Your task to perform on an android device: Show the shopping cart on walmart.com. Search for "logitech g pro" on walmart.com, select the first entry, and add it to the cart. Image 0: 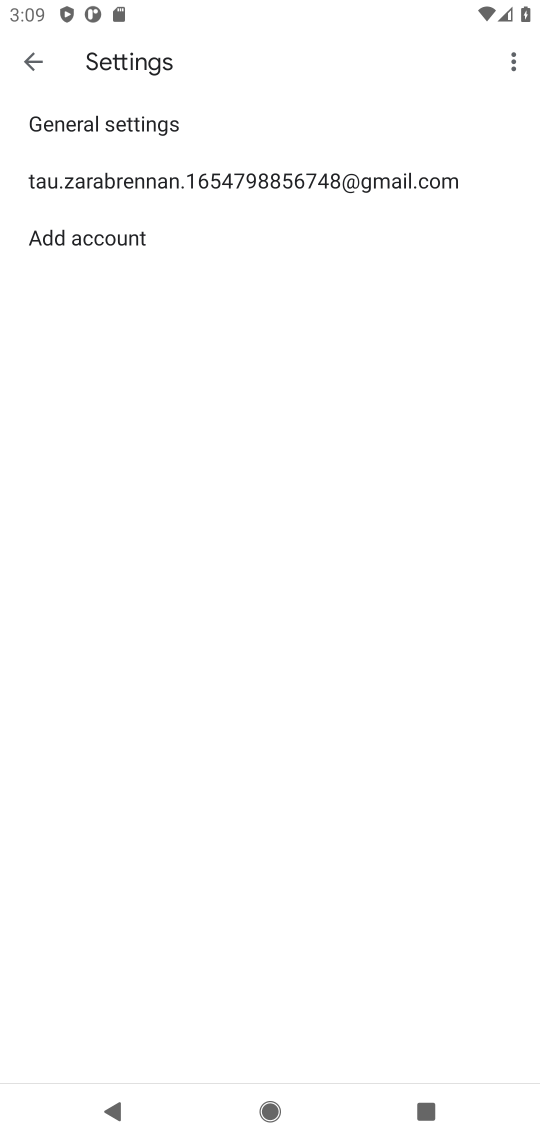
Step 0: press home button
Your task to perform on an android device: Show the shopping cart on walmart.com. Search for "logitech g pro" on walmart.com, select the first entry, and add it to the cart. Image 1: 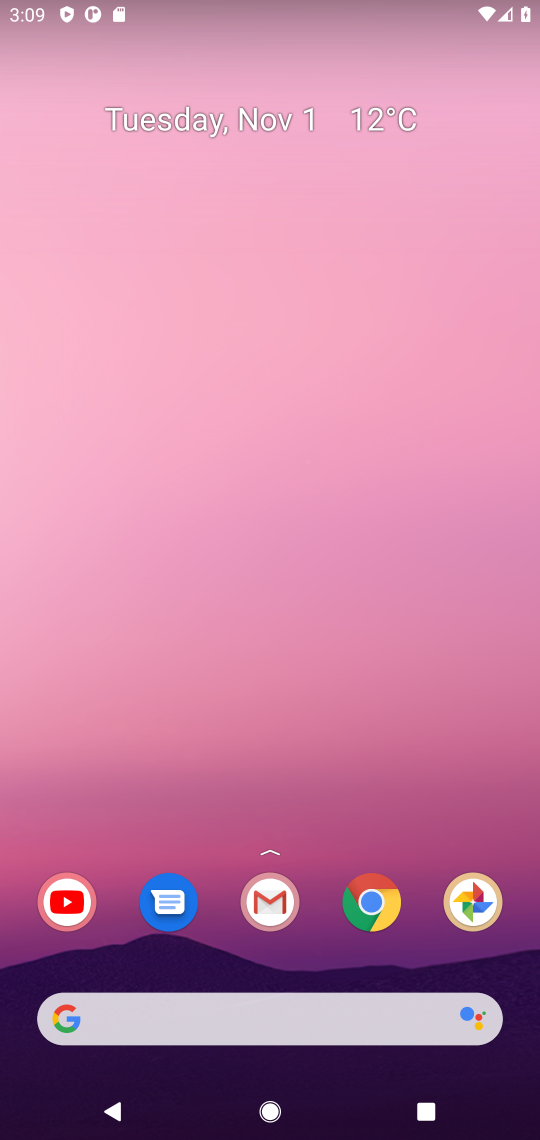
Step 1: drag from (261, 1037) to (260, 314)
Your task to perform on an android device: Show the shopping cart on walmart.com. Search for "logitech g pro" on walmart.com, select the first entry, and add it to the cart. Image 2: 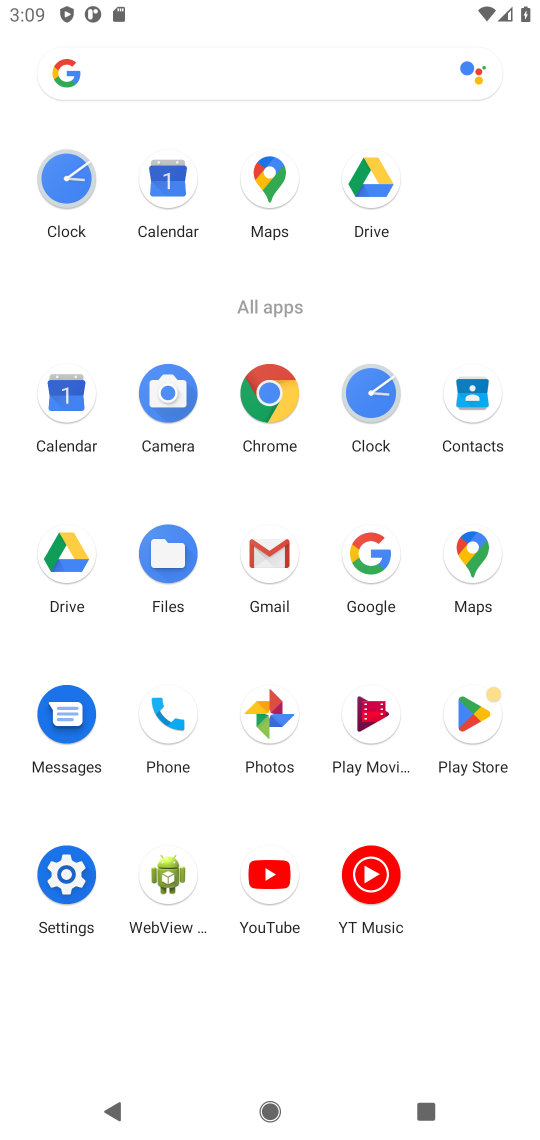
Step 2: click (361, 549)
Your task to perform on an android device: Show the shopping cart on walmart.com. Search for "logitech g pro" on walmart.com, select the first entry, and add it to the cart. Image 3: 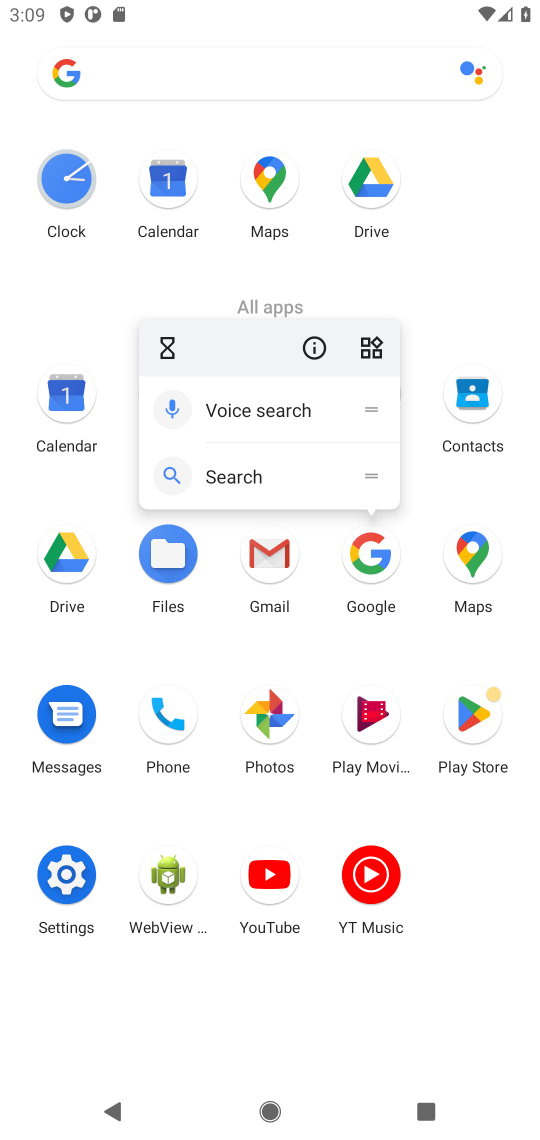
Step 3: click (381, 568)
Your task to perform on an android device: Show the shopping cart on walmart.com. Search for "logitech g pro" on walmart.com, select the first entry, and add it to the cart. Image 4: 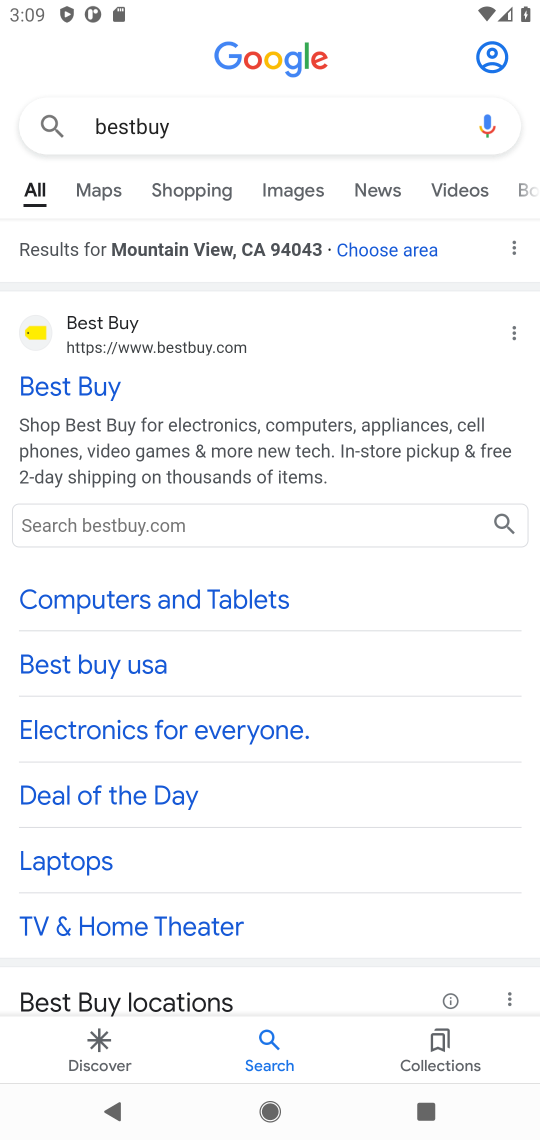
Step 4: click (125, 131)
Your task to perform on an android device: Show the shopping cart on walmart.com. Search for "logitech g pro" on walmart.com, select the first entry, and add it to the cart. Image 5: 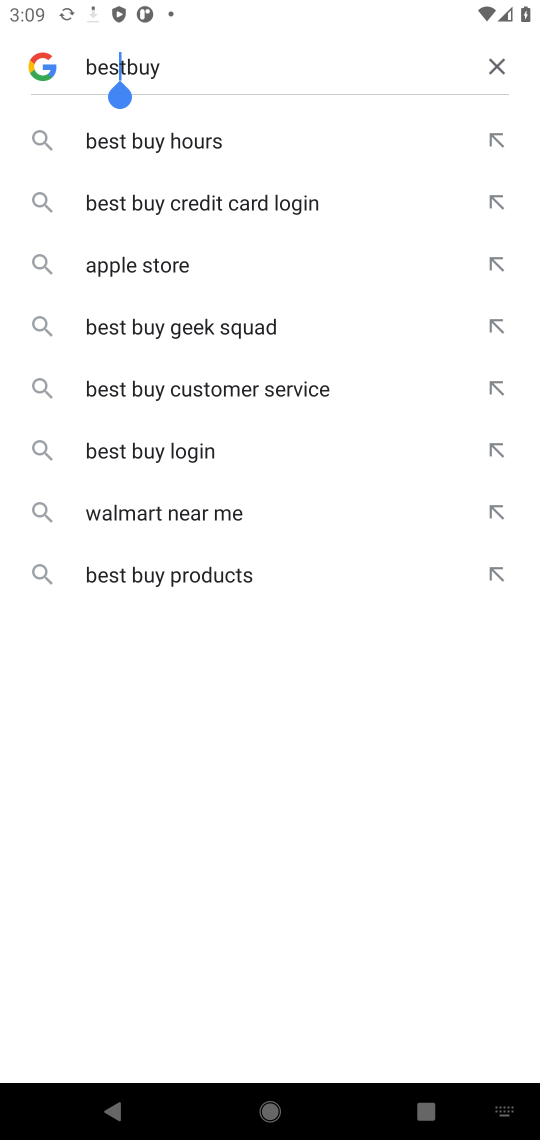
Step 5: click (491, 69)
Your task to perform on an android device: Show the shopping cart on walmart.com. Search for "logitech g pro" on walmart.com, select the first entry, and add it to the cart. Image 6: 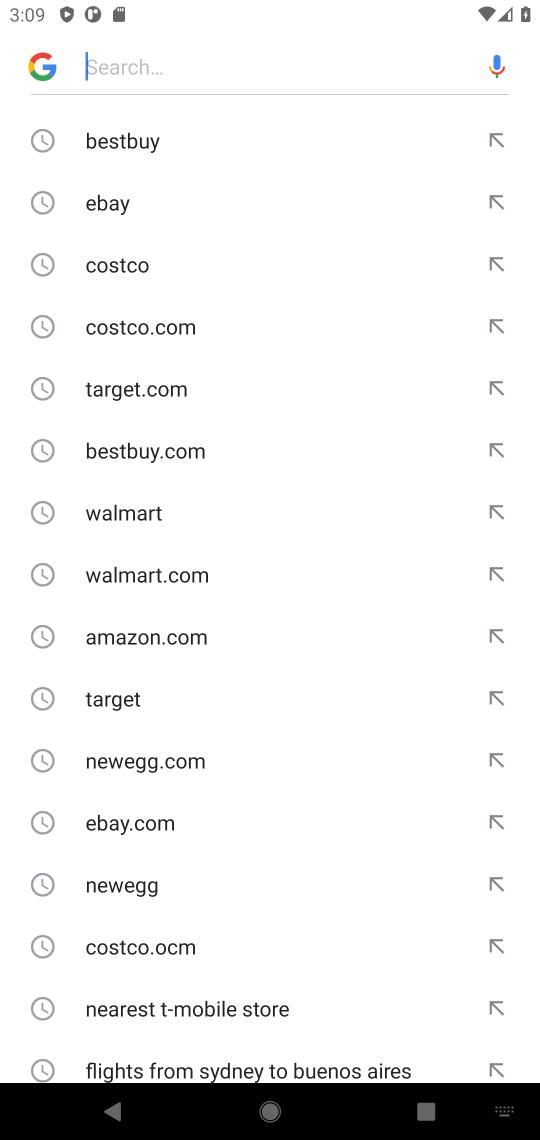
Step 6: click (128, 515)
Your task to perform on an android device: Show the shopping cart on walmart.com. Search for "logitech g pro" on walmart.com, select the first entry, and add it to the cart. Image 7: 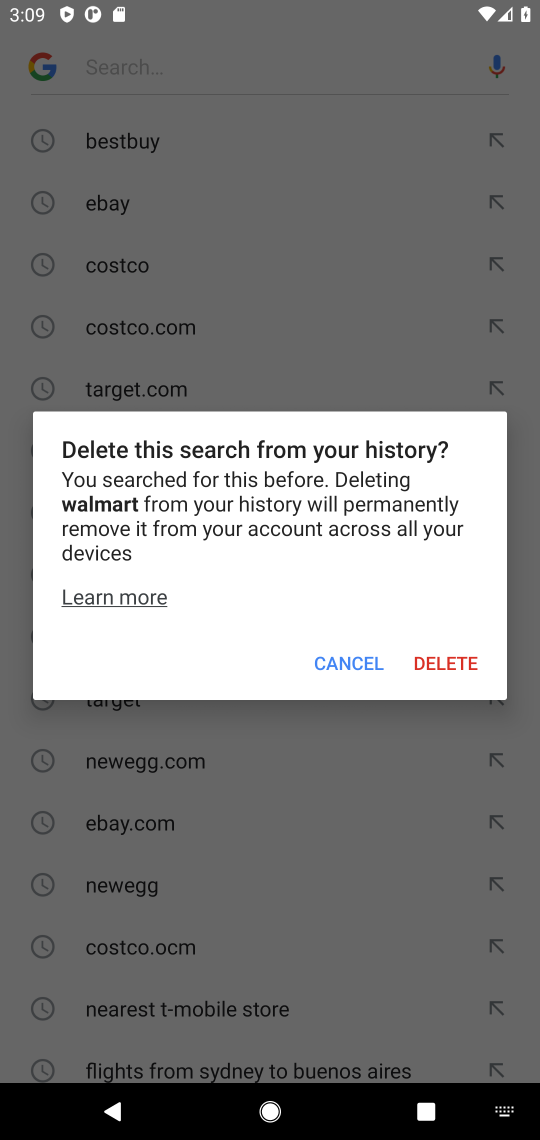
Step 7: click (311, 667)
Your task to perform on an android device: Show the shopping cart on walmart.com. Search for "logitech g pro" on walmart.com, select the first entry, and add it to the cart. Image 8: 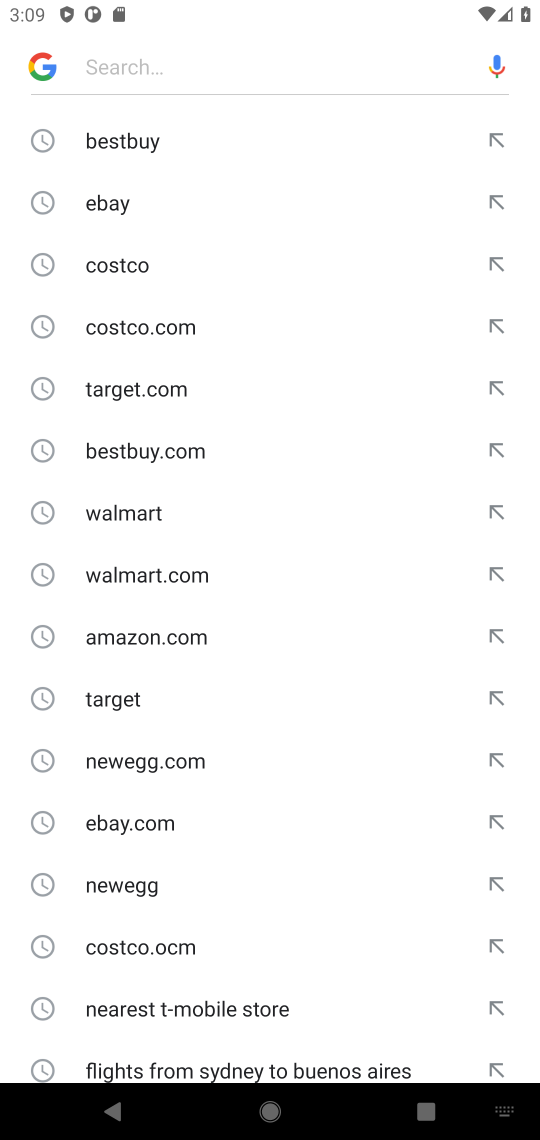
Step 8: click (169, 566)
Your task to perform on an android device: Show the shopping cart on walmart.com. Search for "logitech g pro" on walmart.com, select the first entry, and add it to the cart. Image 9: 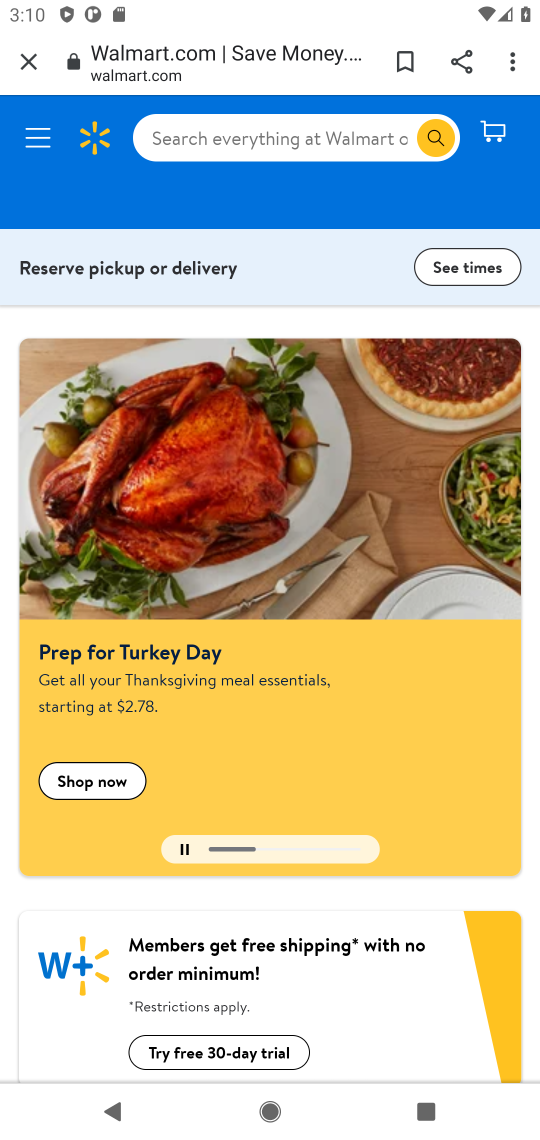
Step 9: click (293, 136)
Your task to perform on an android device: Show the shopping cart on walmart.com. Search for "logitech g pro" on walmart.com, select the first entry, and add it to the cart. Image 10: 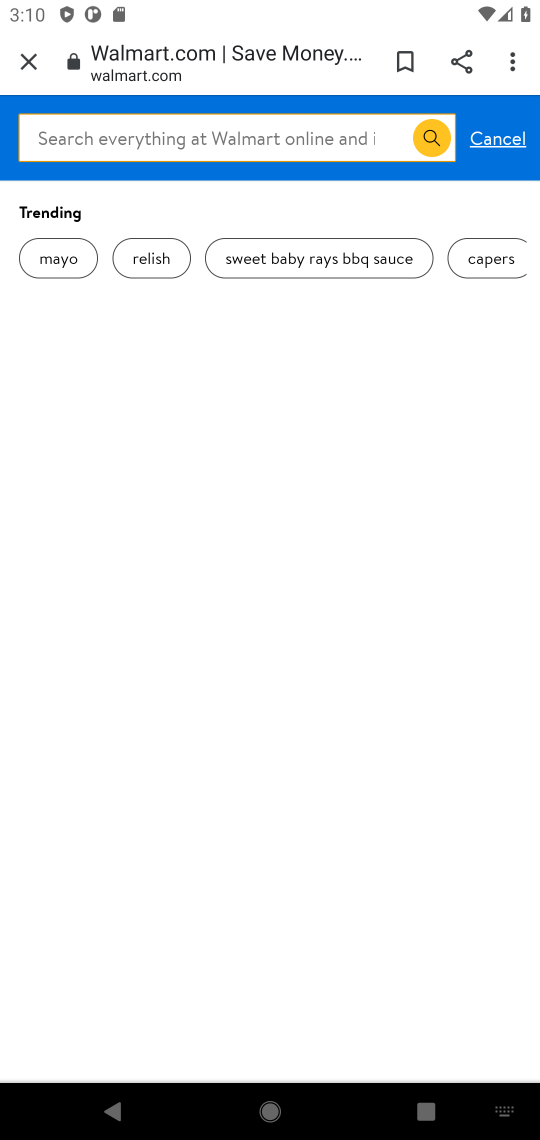
Step 10: type "logitech g pro"
Your task to perform on an android device: Show the shopping cart on walmart.com. Search for "logitech g pro" on walmart.com, select the first entry, and add it to the cart. Image 11: 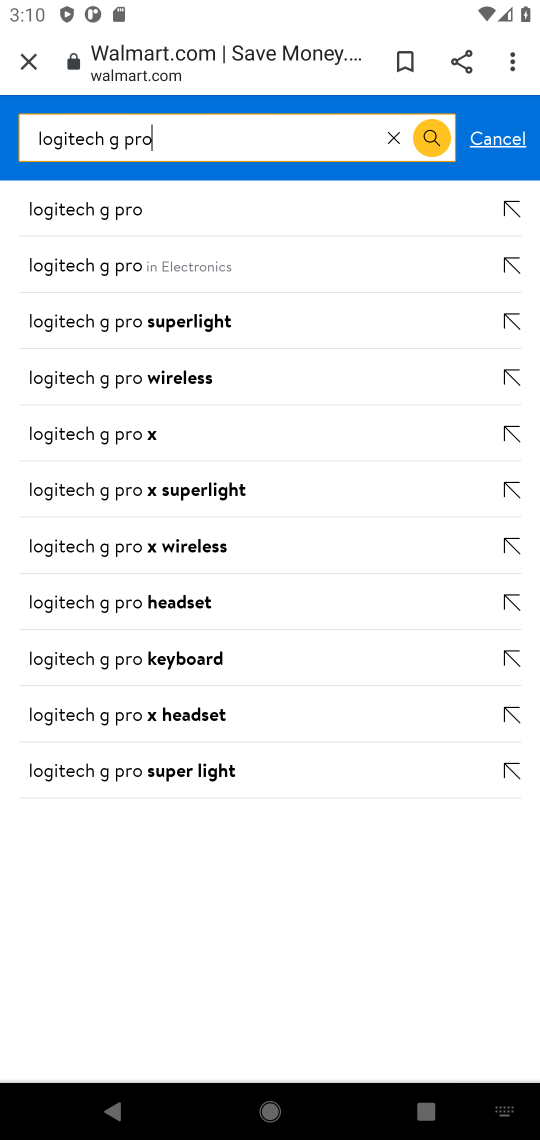
Step 11: click (64, 208)
Your task to perform on an android device: Show the shopping cart on walmart.com. Search for "logitech g pro" on walmart.com, select the first entry, and add it to the cart. Image 12: 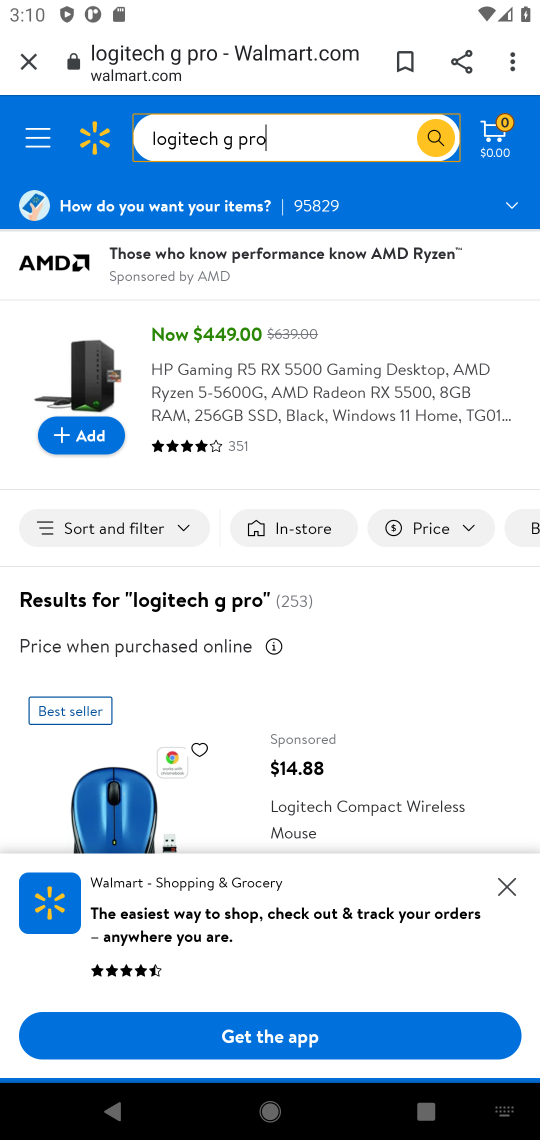
Step 12: click (328, 774)
Your task to perform on an android device: Show the shopping cart on walmart.com. Search for "logitech g pro" on walmart.com, select the first entry, and add it to the cart. Image 13: 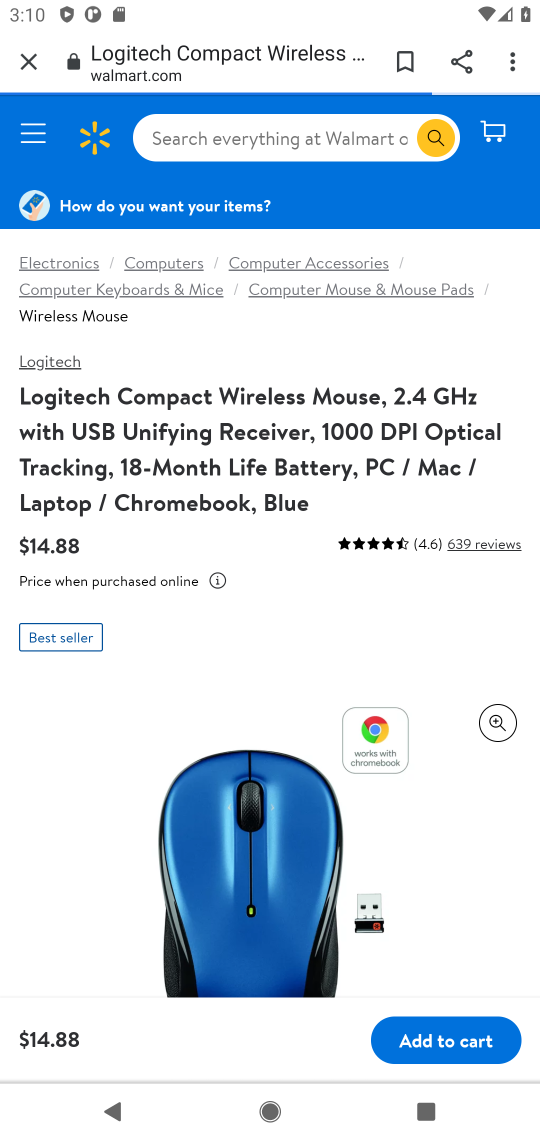
Step 13: task complete